Your task to perform on an android device: Search for Mexican restaurants on Maps Image 0: 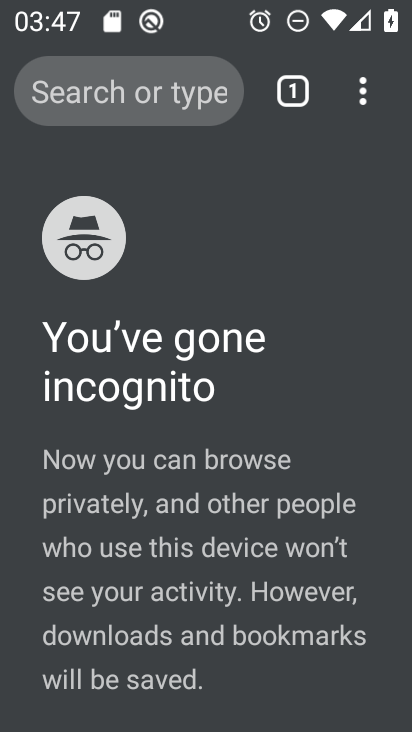
Step 0: press home button
Your task to perform on an android device: Search for Mexican restaurants on Maps Image 1: 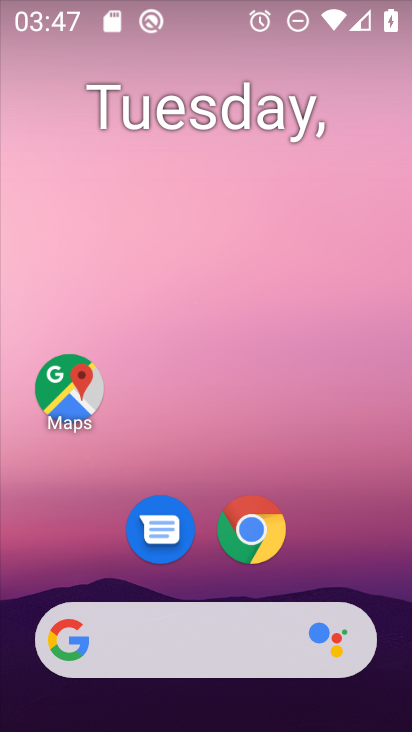
Step 1: click (46, 386)
Your task to perform on an android device: Search for Mexican restaurants on Maps Image 2: 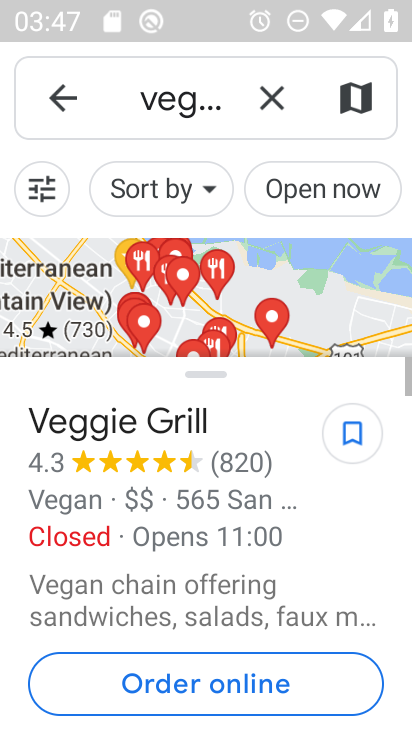
Step 2: click (275, 95)
Your task to perform on an android device: Search for Mexican restaurants on Maps Image 3: 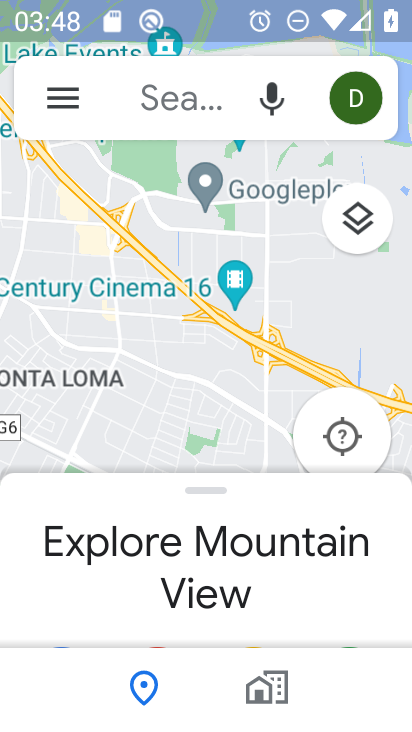
Step 3: click (138, 86)
Your task to perform on an android device: Search for Mexican restaurants on Maps Image 4: 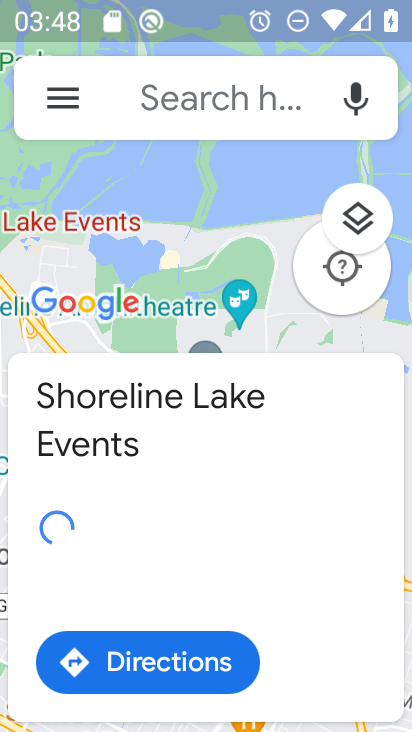
Step 4: click (191, 93)
Your task to perform on an android device: Search for Mexican restaurants on Maps Image 5: 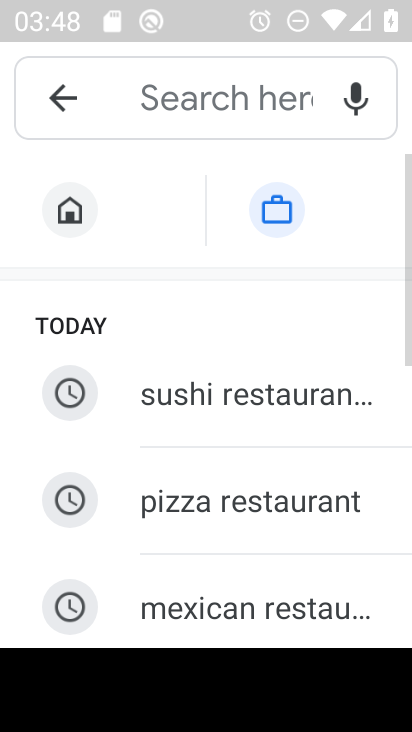
Step 5: click (235, 597)
Your task to perform on an android device: Search for Mexican restaurants on Maps Image 6: 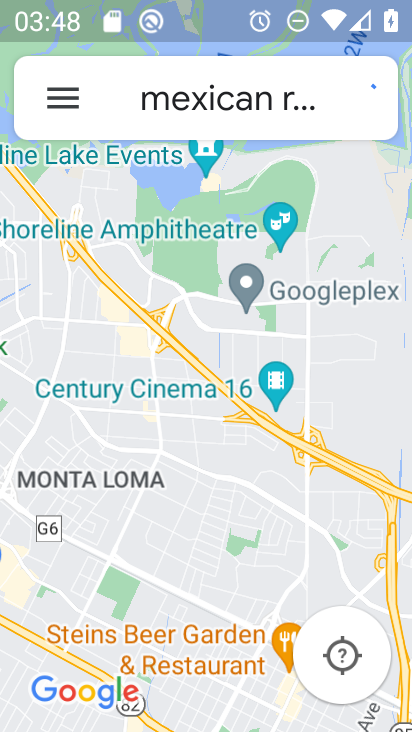
Step 6: task complete